Your task to perform on an android device: Open the phone app and click the voicemail tab. Image 0: 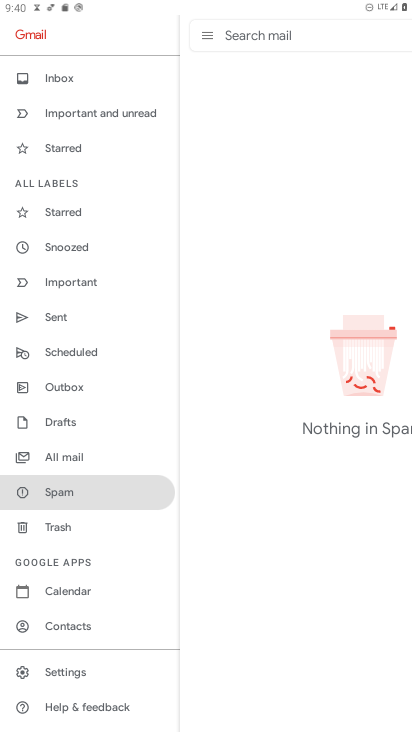
Step 0: press home button
Your task to perform on an android device: Open the phone app and click the voicemail tab. Image 1: 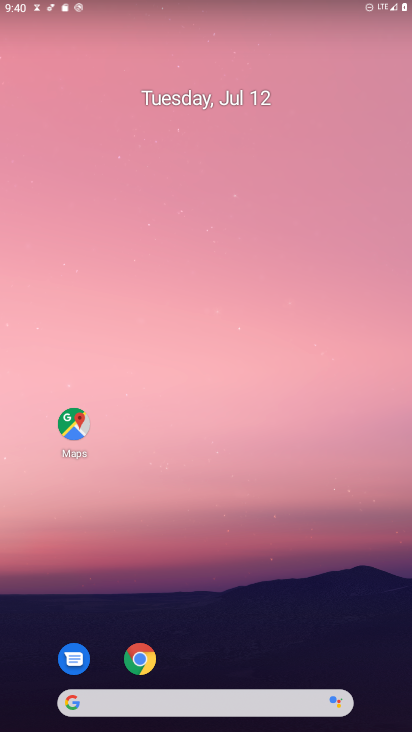
Step 1: drag from (184, 700) to (215, 70)
Your task to perform on an android device: Open the phone app and click the voicemail tab. Image 2: 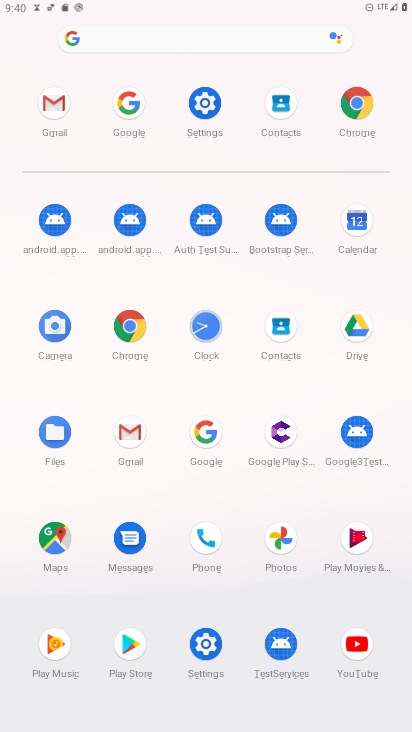
Step 2: click (203, 539)
Your task to perform on an android device: Open the phone app and click the voicemail tab. Image 3: 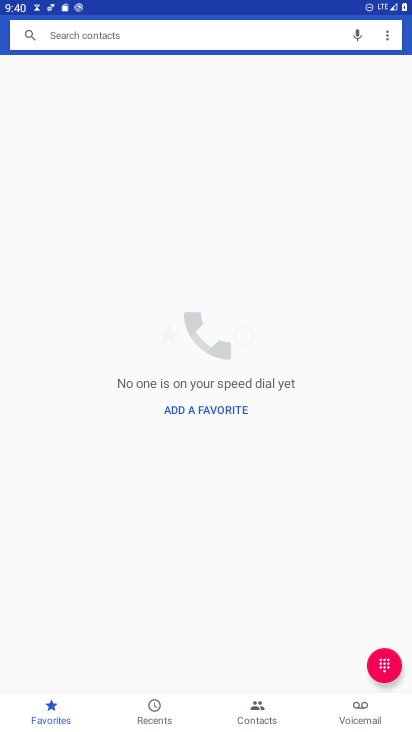
Step 3: click (363, 704)
Your task to perform on an android device: Open the phone app and click the voicemail tab. Image 4: 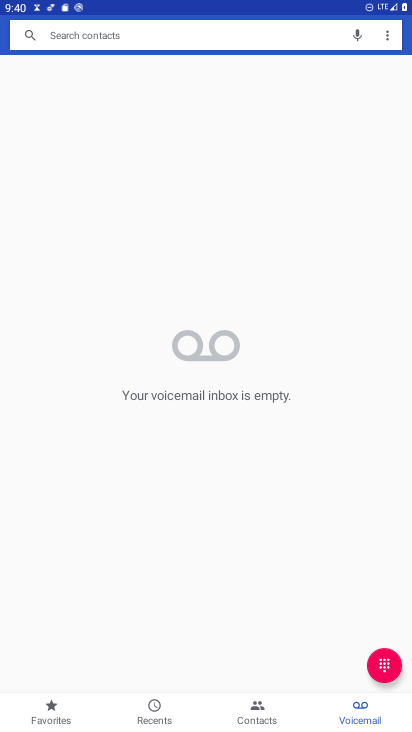
Step 4: task complete